Your task to perform on an android device: Go to sound settings Image 0: 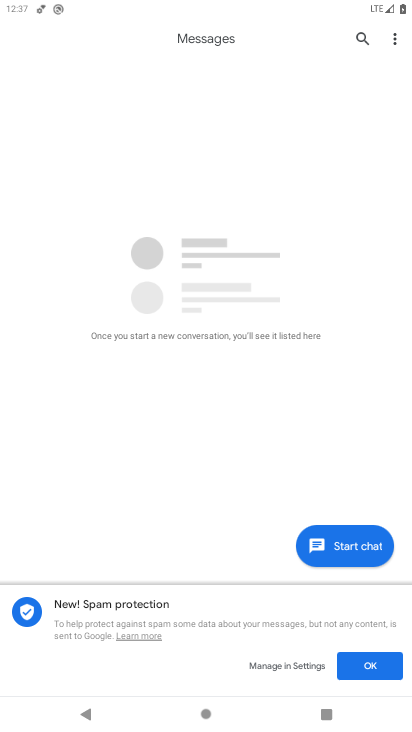
Step 0: press home button
Your task to perform on an android device: Go to sound settings Image 1: 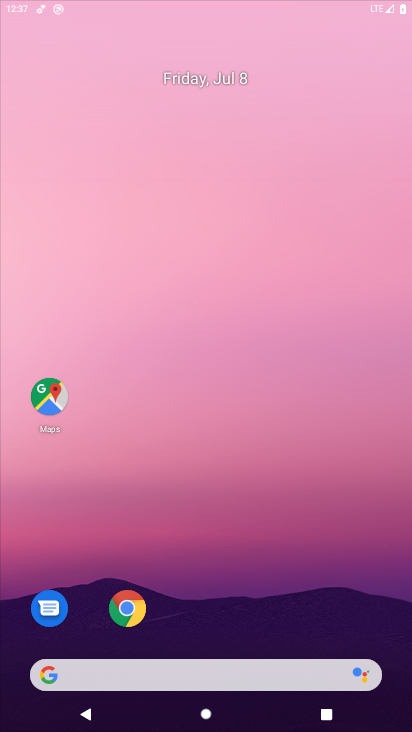
Step 1: drag from (297, 672) to (272, 63)
Your task to perform on an android device: Go to sound settings Image 2: 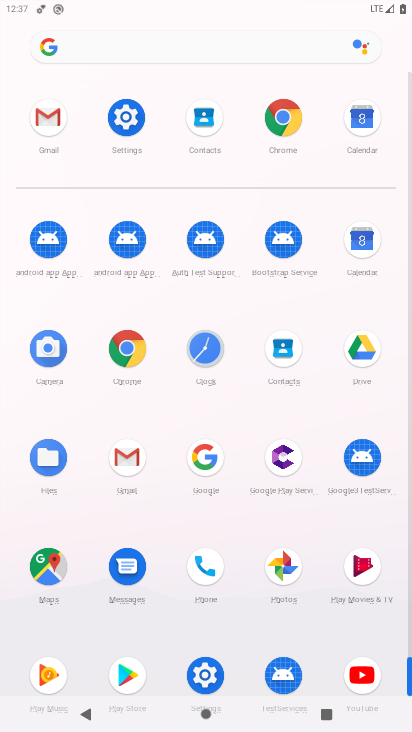
Step 2: click (122, 138)
Your task to perform on an android device: Go to sound settings Image 3: 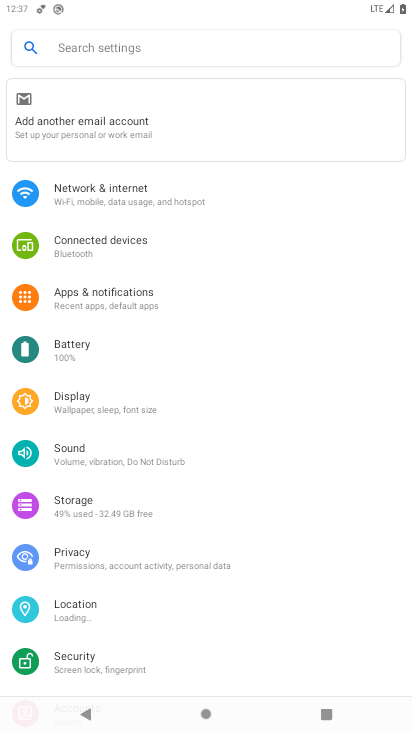
Step 3: click (80, 445)
Your task to perform on an android device: Go to sound settings Image 4: 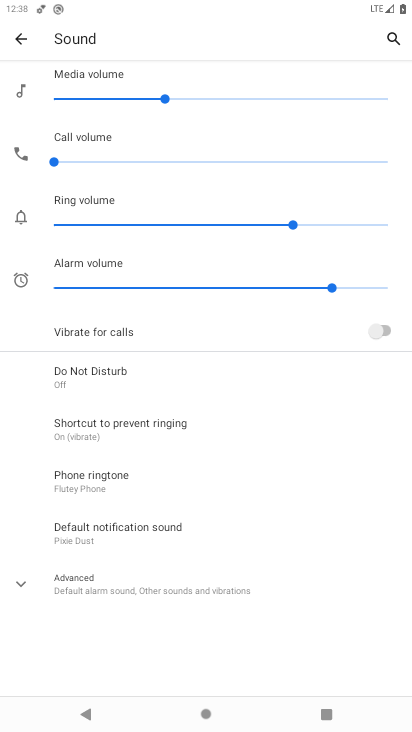
Step 4: task complete